Your task to perform on an android device: turn off smart reply in the gmail app Image 0: 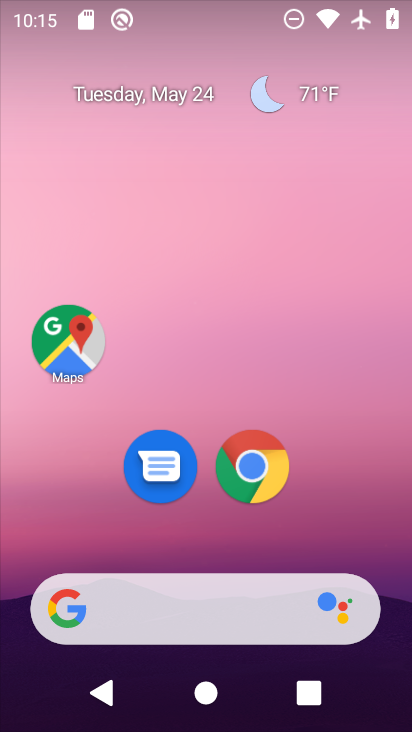
Step 0: drag from (174, 556) to (210, 12)
Your task to perform on an android device: turn off smart reply in the gmail app Image 1: 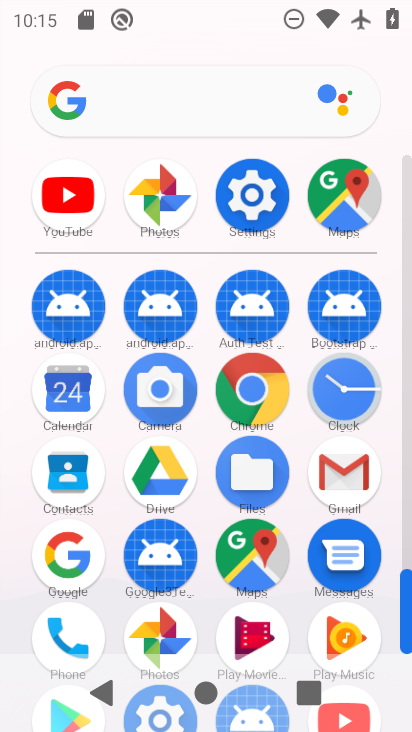
Step 1: click (336, 485)
Your task to perform on an android device: turn off smart reply in the gmail app Image 2: 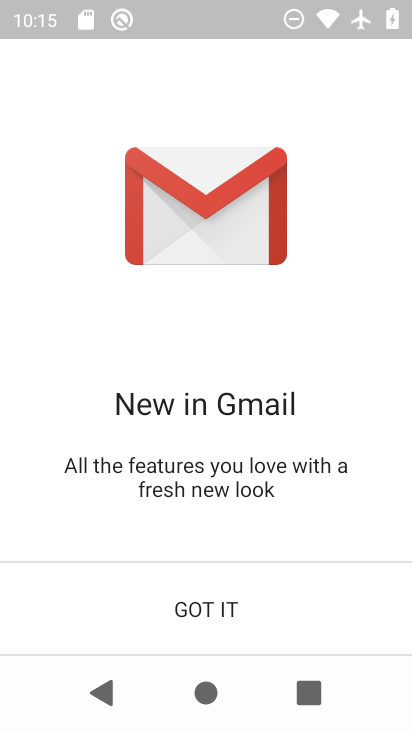
Step 2: click (230, 621)
Your task to perform on an android device: turn off smart reply in the gmail app Image 3: 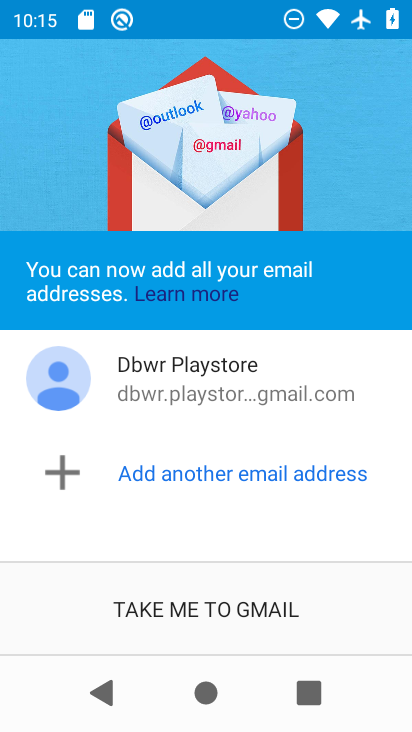
Step 3: click (226, 611)
Your task to perform on an android device: turn off smart reply in the gmail app Image 4: 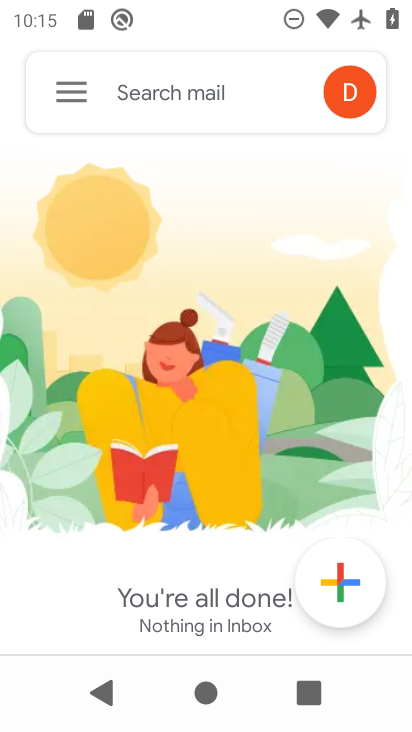
Step 4: click (64, 107)
Your task to perform on an android device: turn off smart reply in the gmail app Image 5: 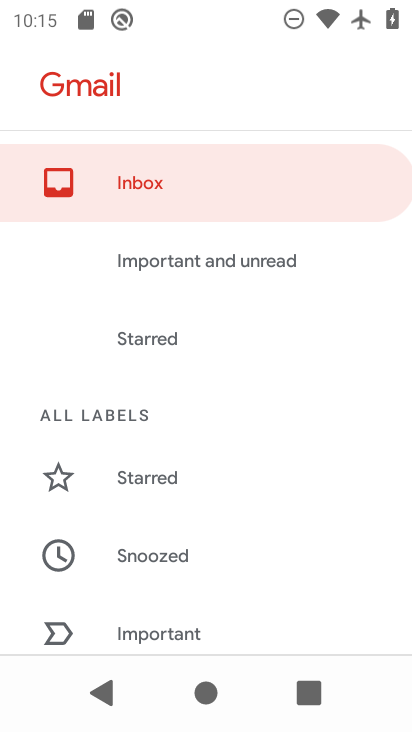
Step 5: drag from (151, 564) to (253, 105)
Your task to perform on an android device: turn off smart reply in the gmail app Image 6: 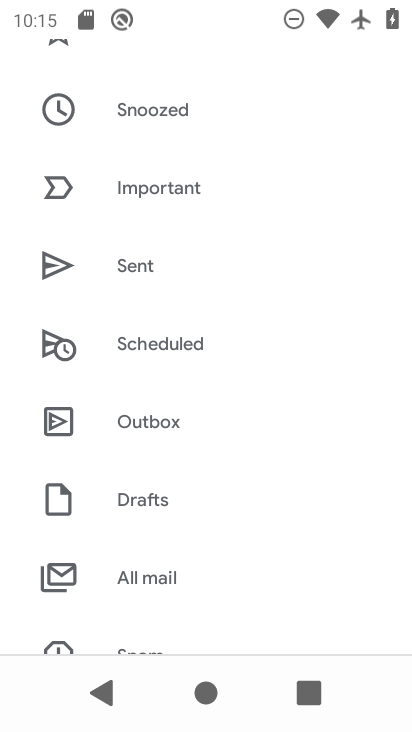
Step 6: drag from (206, 617) to (251, 119)
Your task to perform on an android device: turn off smart reply in the gmail app Image 7: 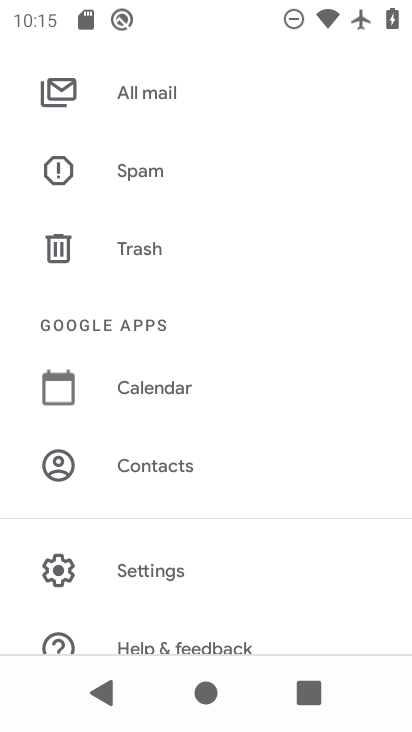
Step 7: drag from (155, 571) to (168, 392)
Your task to perform on an android device: turn off smart reply in the gmail app Image 8: 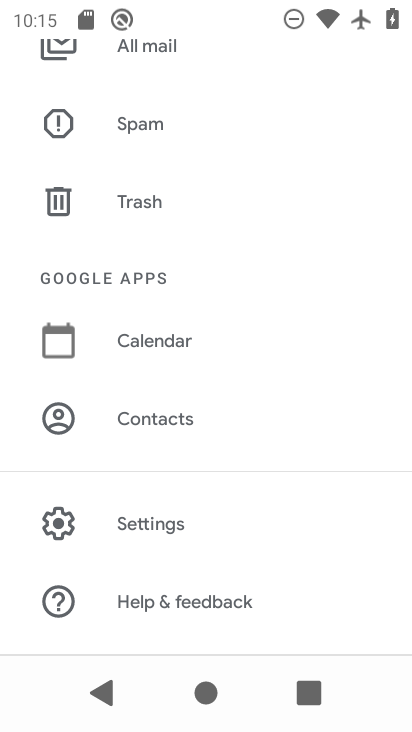
Step 8: click (127, 523)
Your task to perform on an android device: turn off smart reply in the gmail app Image 9: 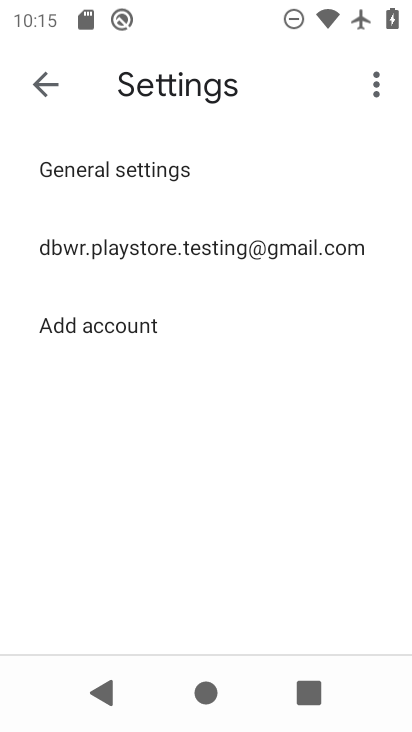
Step 9: click (188, 243)
Your task to perform on an android device: turn off smart reply in the gmail app Image 10: 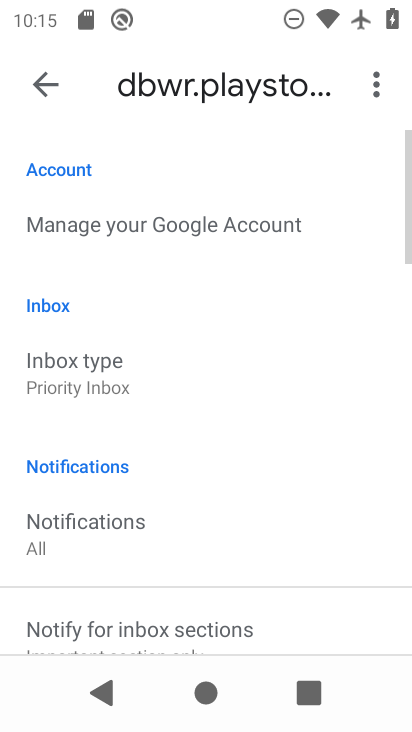
Step 10: drag from (164, 527) to (286, 98)
Your task to perform on an android device: turn off smart reply in the gmail app Image 11: 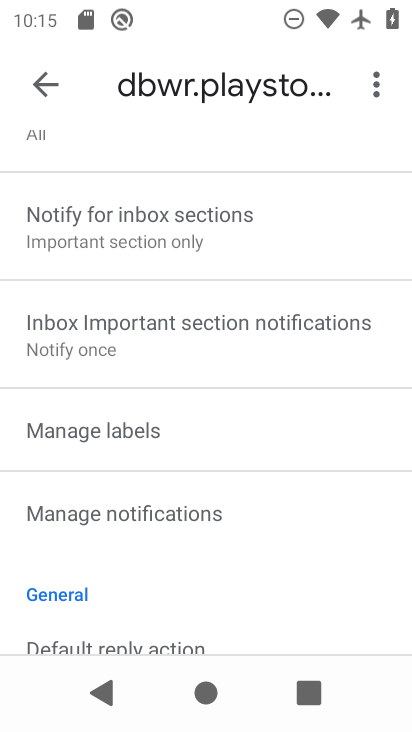
Step 11: drag from (186, 546) to (240, 161)
Your task to perform on an android device: turn off smart reply in the gmail app Image 12: 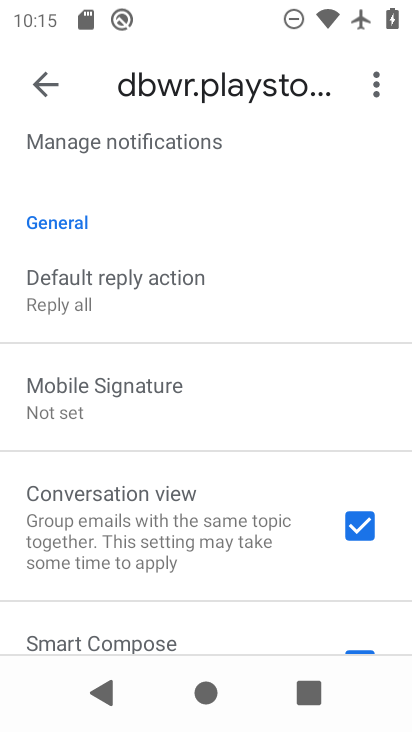
Step 12: drag from (217, 504) to (276, 161)
Your task to perform on an android device: turn off smart reply in the gmail app Image 13: 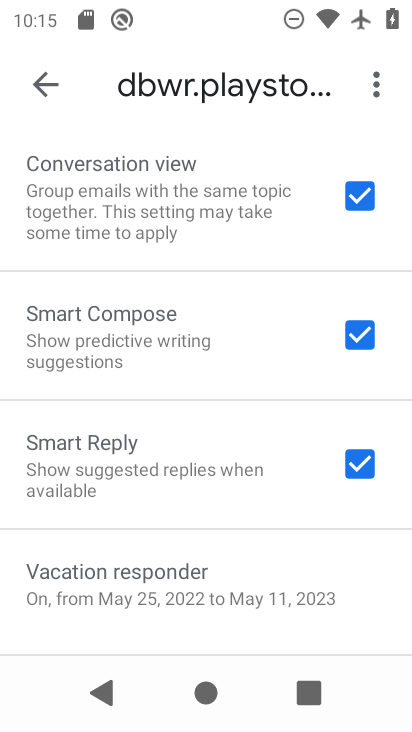
Step 13: click (337, 466)
Your task to perform on an android device: turn off smart reply in the gmail app Image 14: 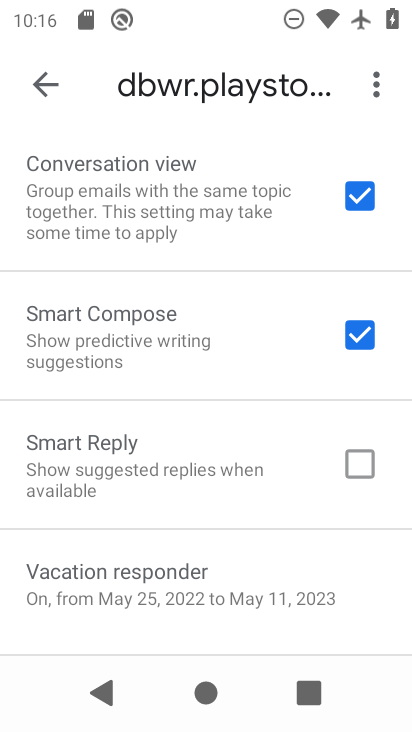
Step 14: task complete